Your task to perform on an android device: turn on showing notifications on the lock screen Image 0: 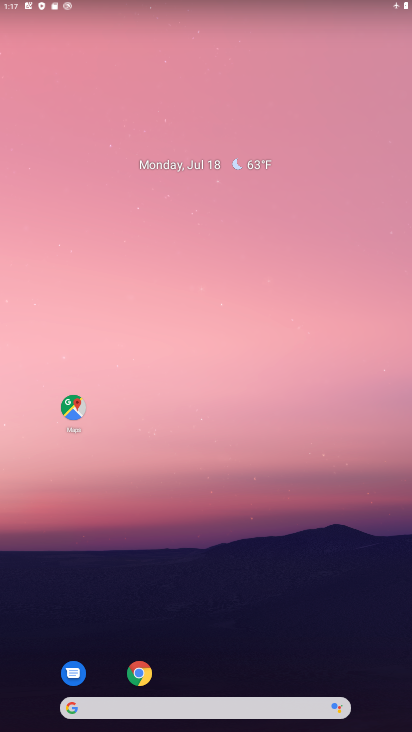
Step 0: drag from (241, 661) to (262, 391)
Your task to perform on an android device: turn on showing notifications on the lock screen Image 1: 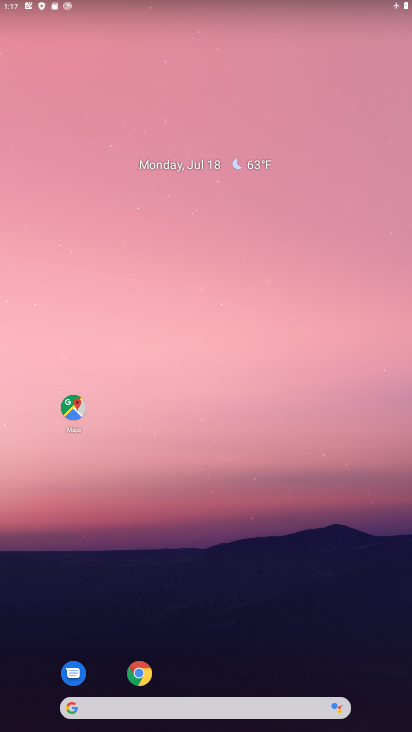
Step 1: drag from (244, 683) to (263, 537)
Your task to perform on an android device: turn on showing notifications on the lock screen Image 2: 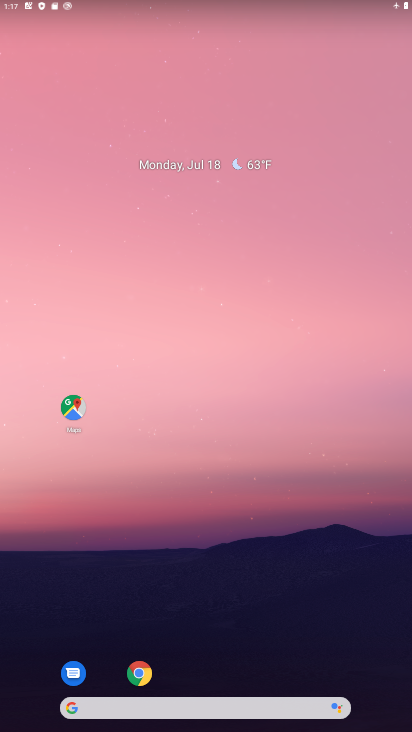
Step 2: drag from (256, 689) to (245, 73)
Your task to perform on an android device: turn on showing notifications on the lock screen Image 3: 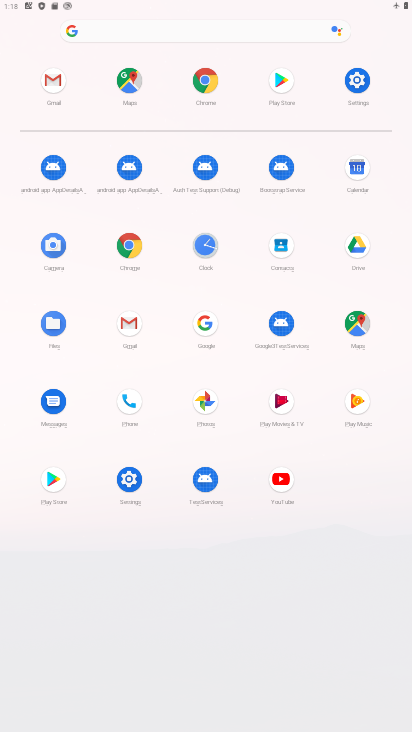
Step 3: click (365, 77)
Your task to perform on an android device: turn on showing notifications on the lock screen Image 4: 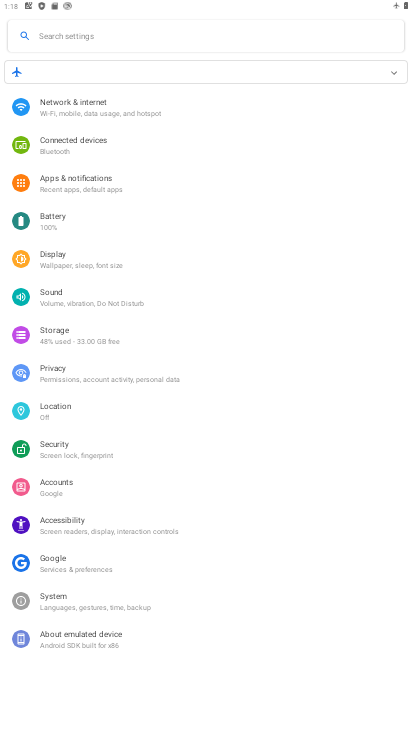
Step 4: click (101, 194)
Your task to perform on an android device: turn on showing notifications on the lock screen Image 5: 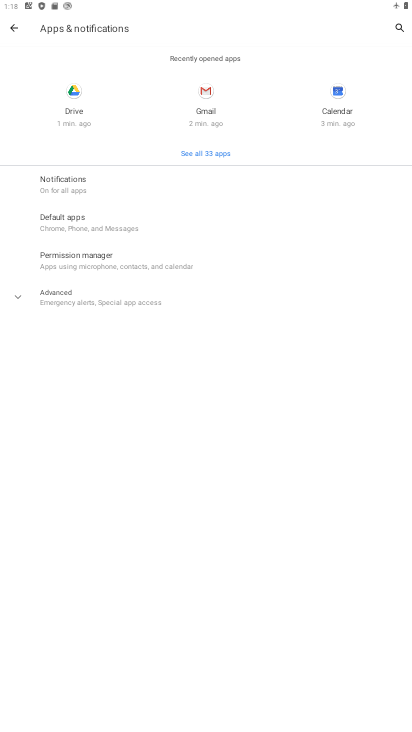
Step 5: click (102, 193)
Your task to perform on an android device: turn on showing notifications on the lock screen Image 6: 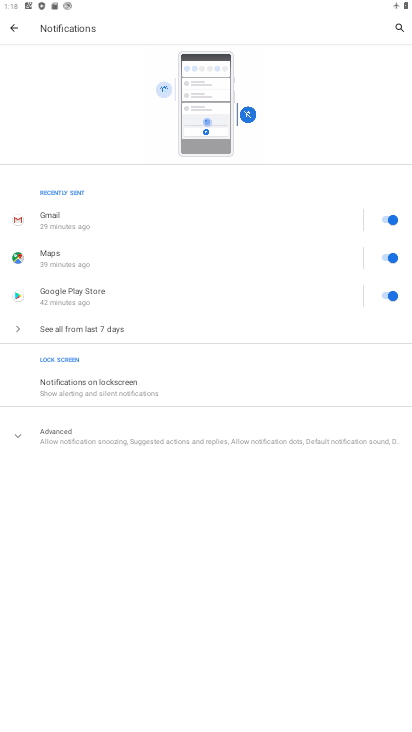
Step 6: click (119, 388)
Your task to perform on an android device: turn on showing notifications on the lock screen Image 7: 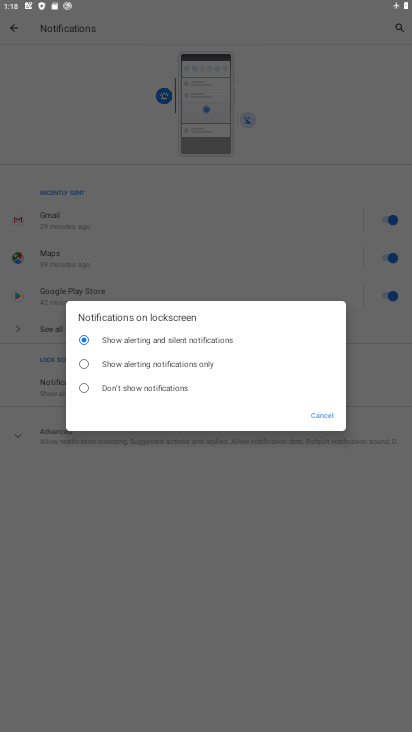
Step 7: task complete